Your task to perform on an android device: Open Amazon Image 0: 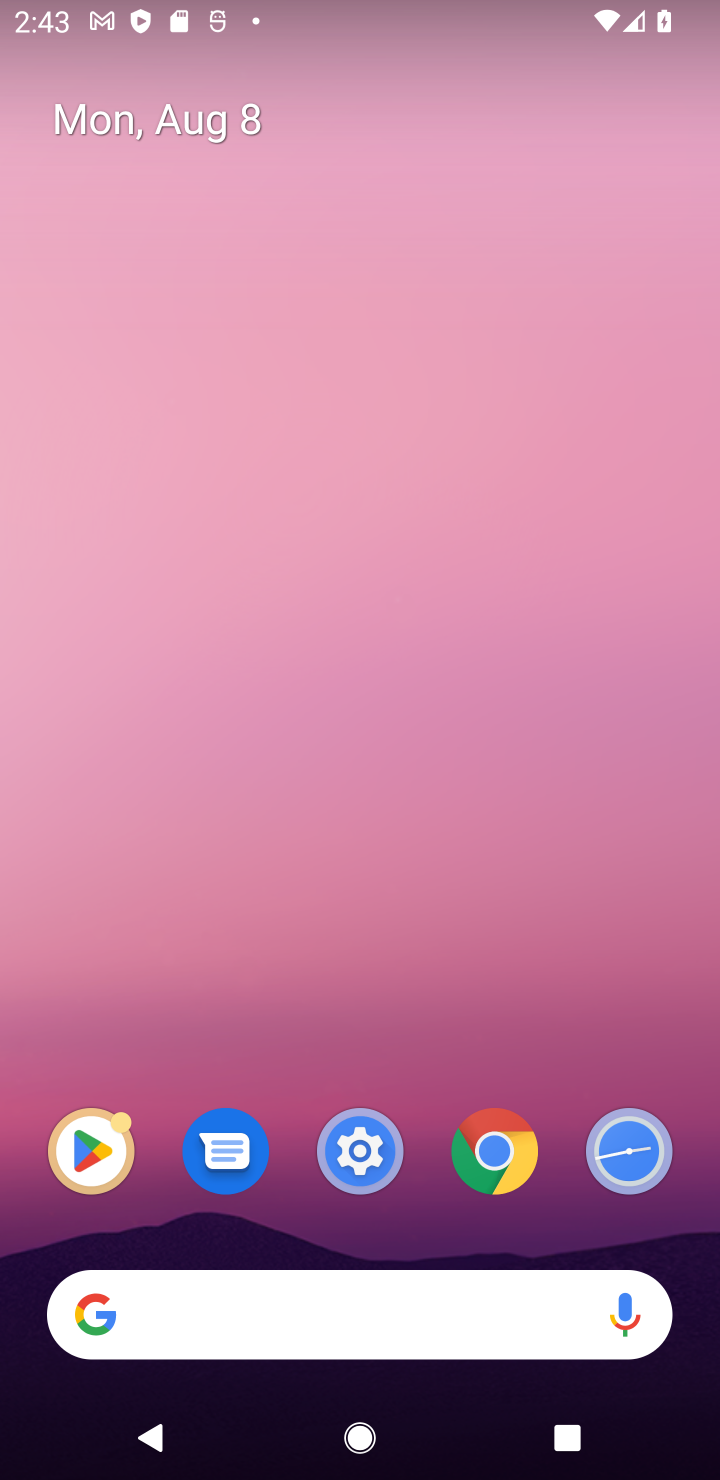
Step 0: click (468, 1125)
Your task to perform on an android device: Open Amazon Image 1: 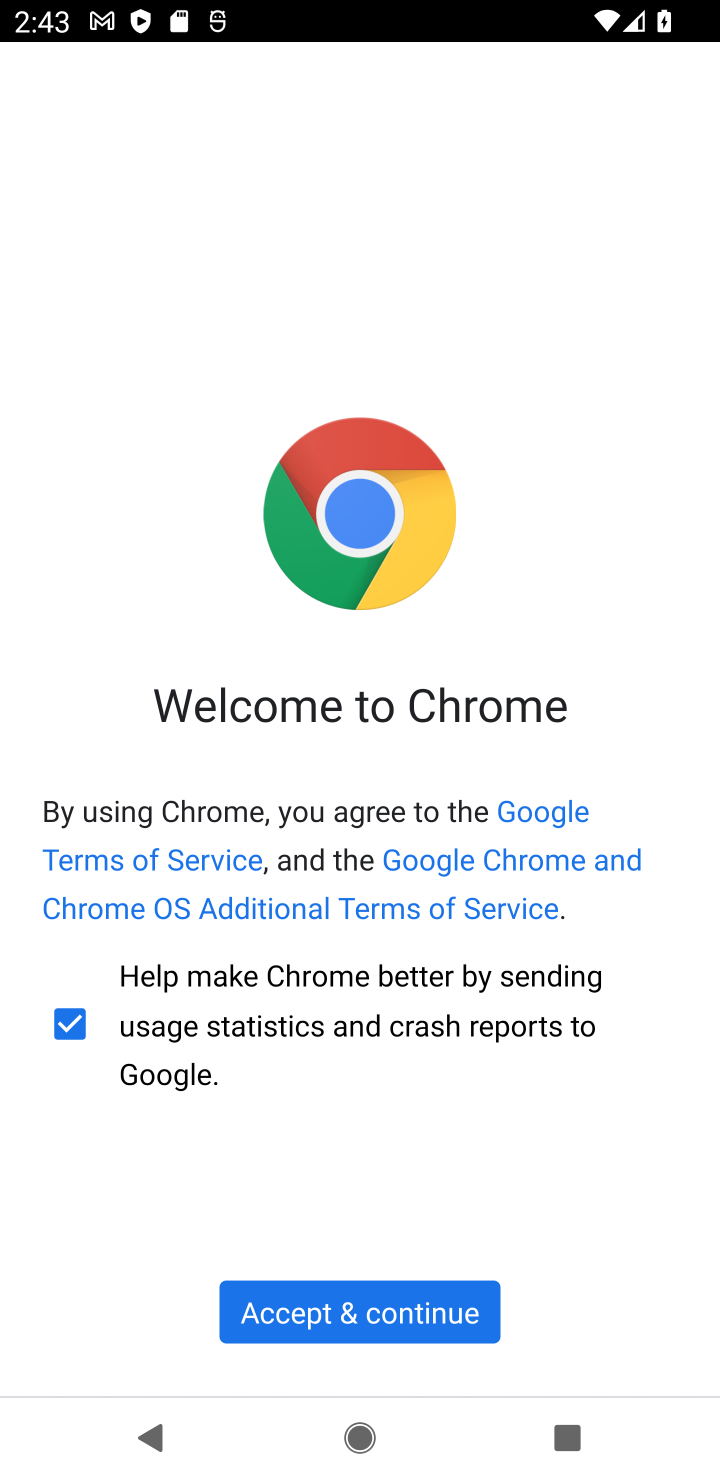
Step 1: click (310, 1305)
Your task to perform on an android device: Open Amazon Image 2: 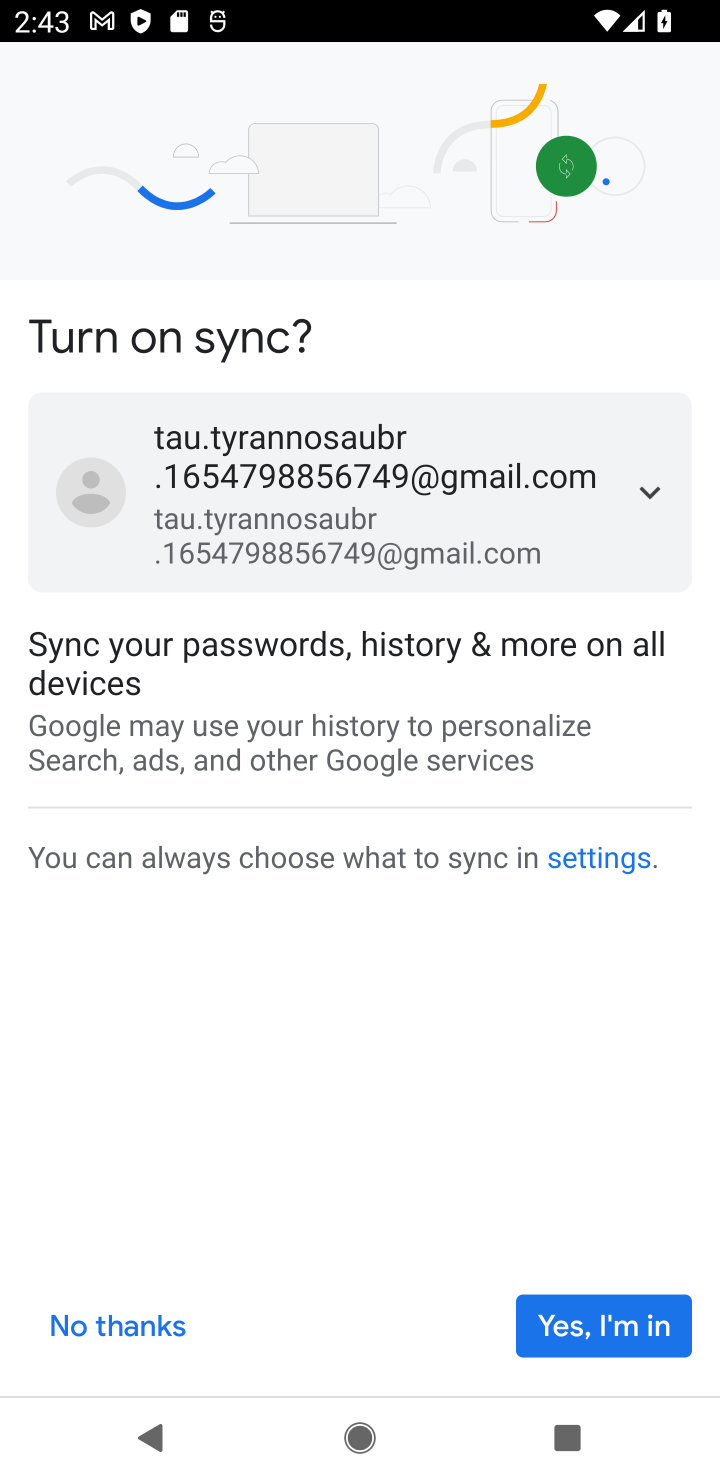
Step 2: click (586, 1332)
Your task to perform on an android device: Open Amazon Image 3: 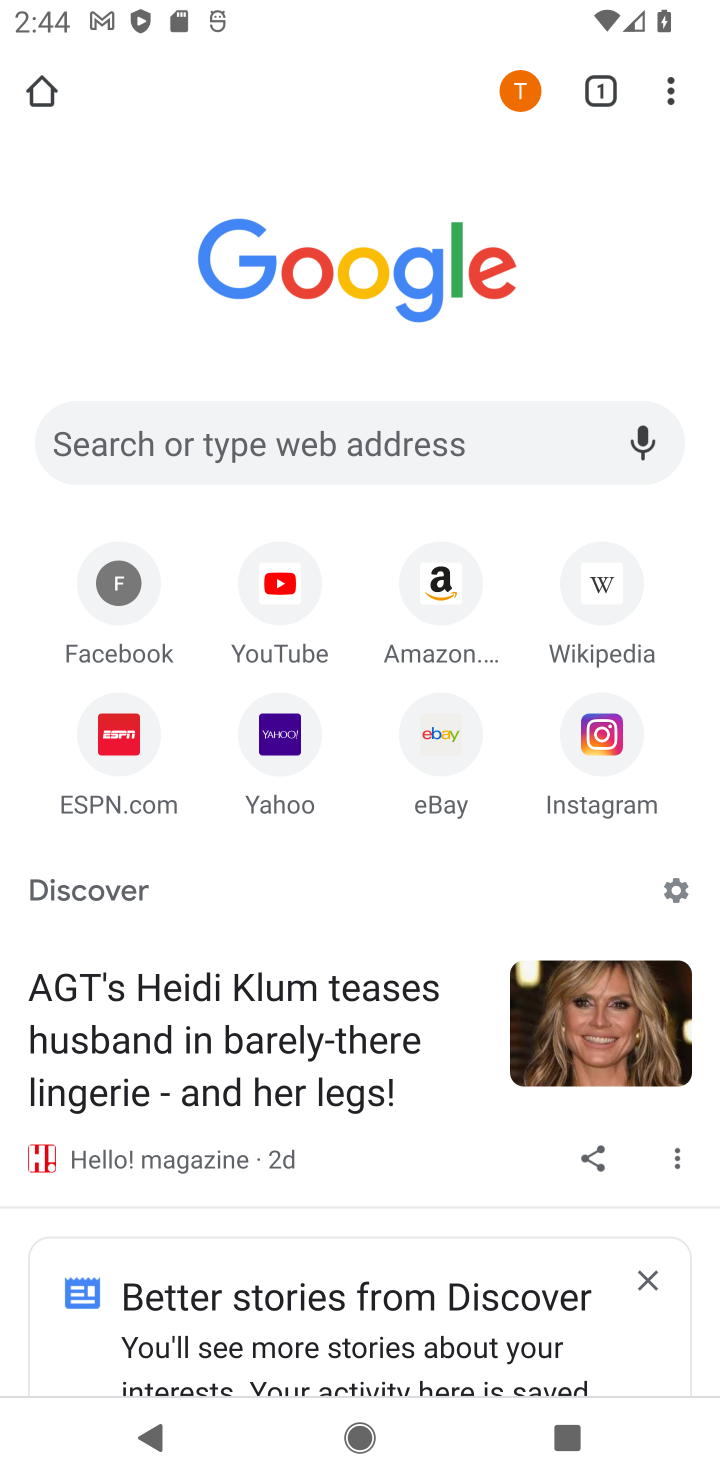
Step 3: click (459, 591)
Your task to perform on an android device: Open Amazon Image 4: 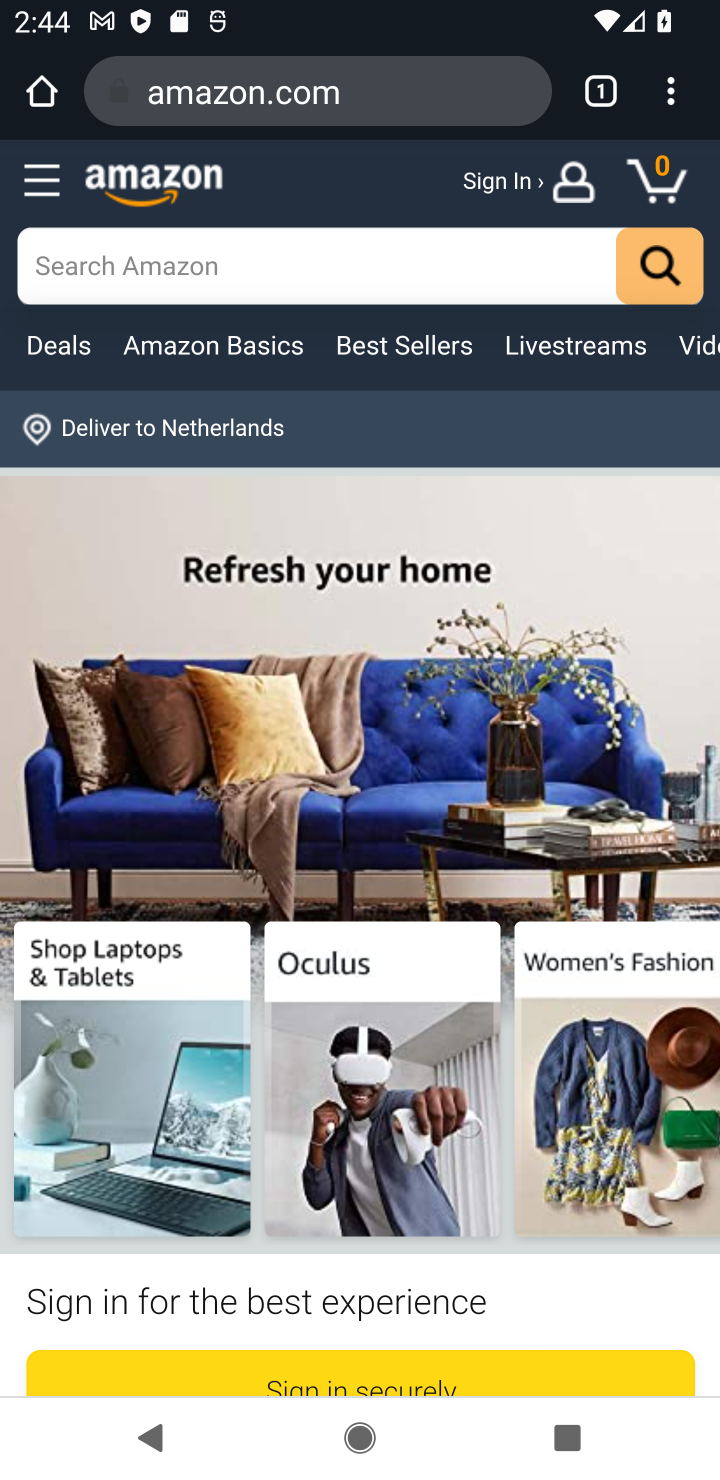
Step 4: task complete